Your task to perform on an android device: visit the assistant section in the google photos Image 0: 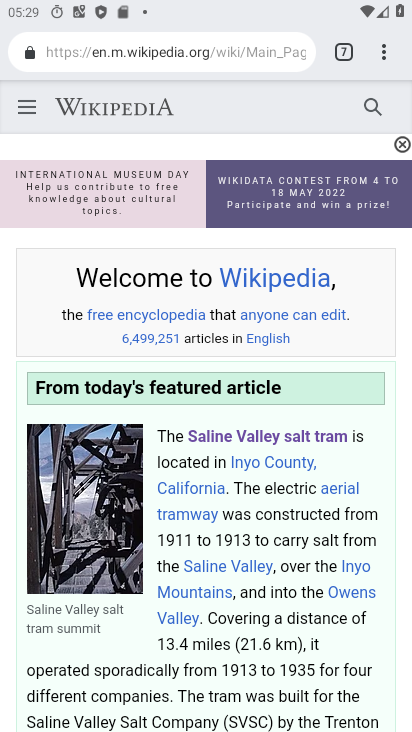
Step 0: press home button
Your task to perform on an android device: visit the assistant section in the google photos Image 1: 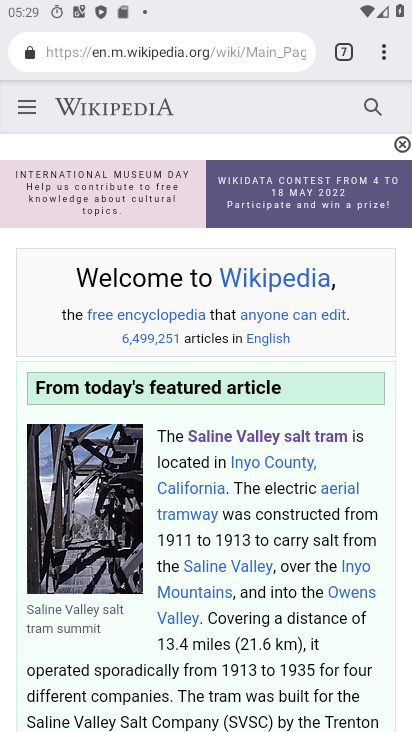
Step 1: press home button
Your task to perform on an android device: visit the assistant section in the google photos Image 2: 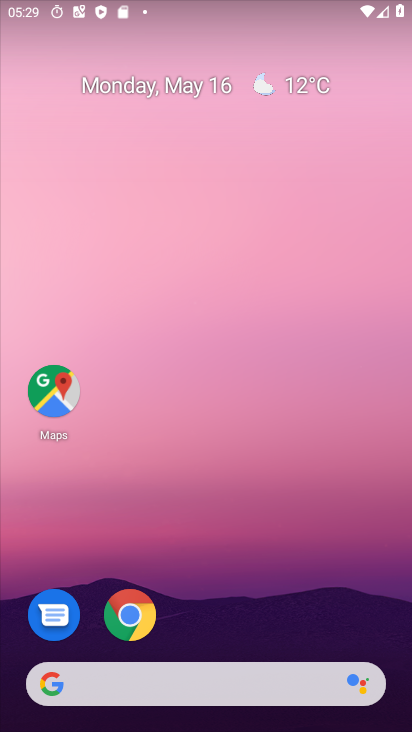
Step 2: drag from (310, 671) to (177, 116)
Your task to perform on an android device: visit the assistant section in the google photos Image 3: 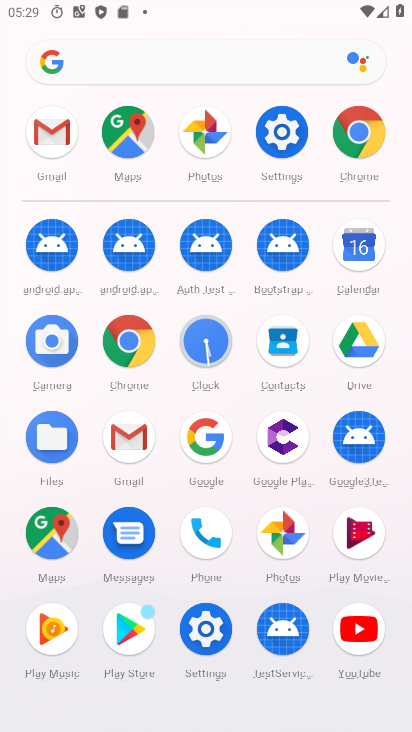
Step 3: click (277, 528)
Your task to perform on an android device: visit the assistant section in the google photos Image 4: 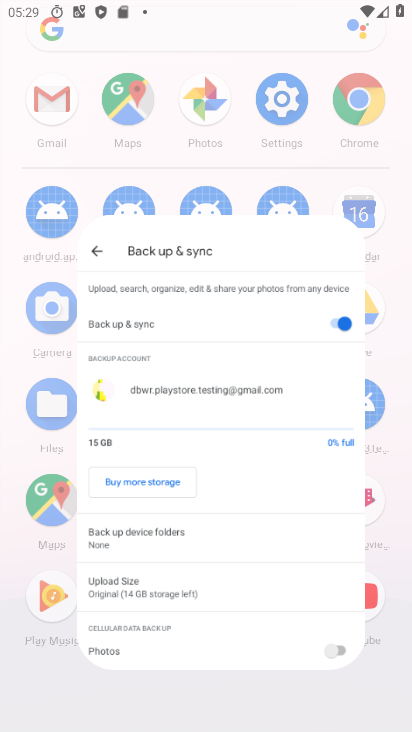
Step 4: click (278, 527)
Your task to perform on an android device: visit the assistant section in the google photos Image 5: 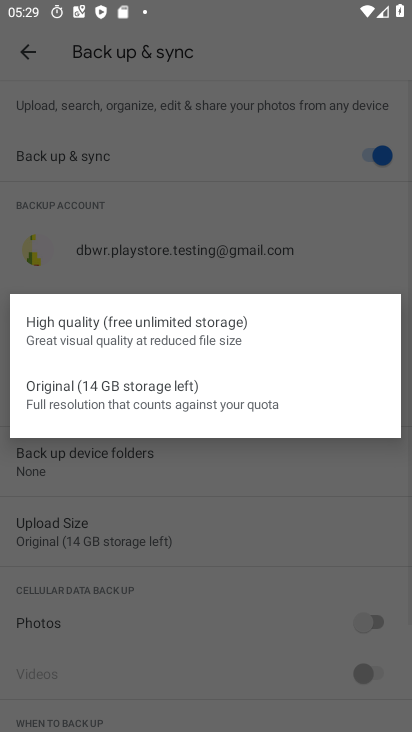
Step 5: click (74, 396)
Your task to perform on an android device: visit the assistant section in the google photos Image 6: 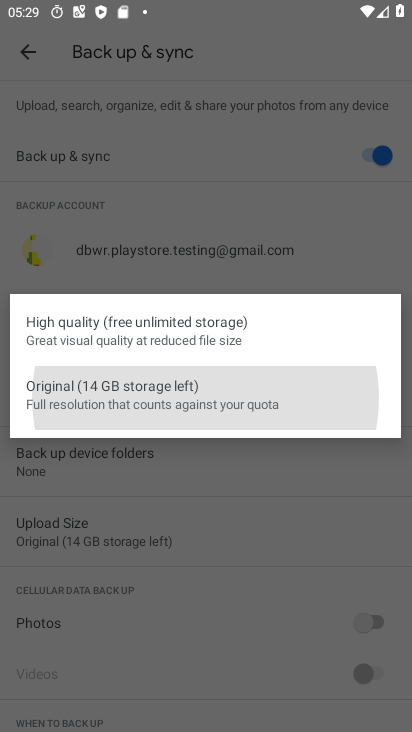
Step 6: click (75, 397)
Your task to perform on an android device: visit the assistant section in the google photos Image 7: 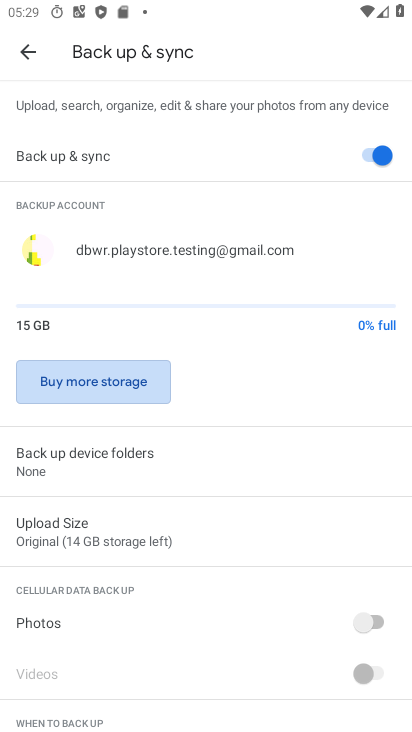
Step 7: click (75, 397)
Your task to perform on an android device: visit the assistant section in the google photos Image 8: 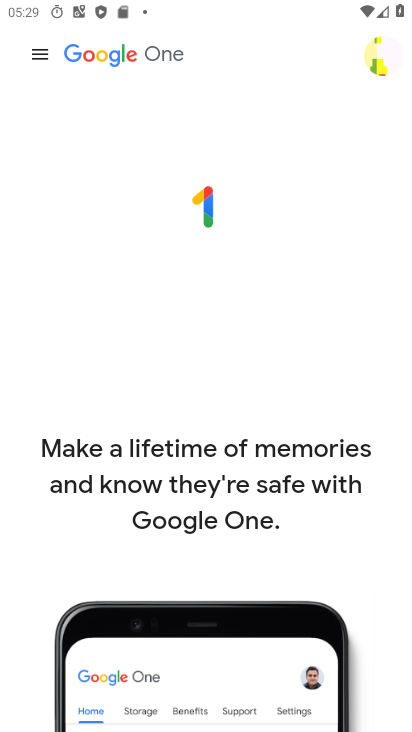
Step 8: press back button
Your task to perform on an android device: visit the assistant section in the google photos Image 9: 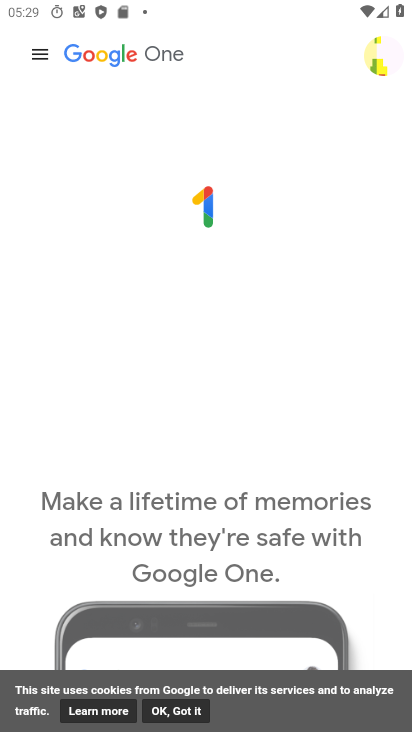
Step 9: press back button
Your task to perform on an android device: visit the assistant section in the google photos Image 10: 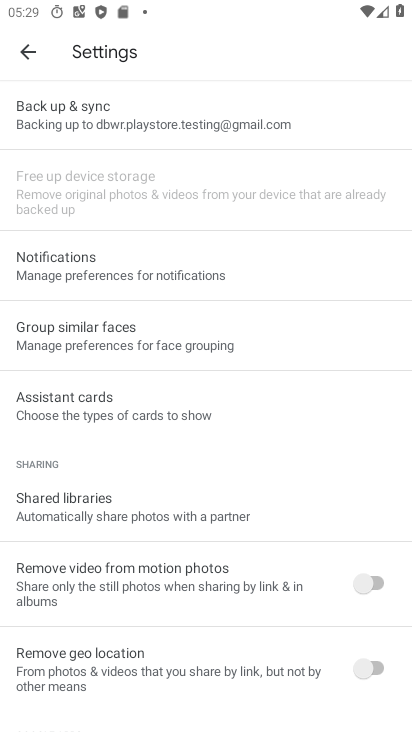
Step 10: click (20, 46)
Your task to perform on an android device: visit the assistant section in the google photos Image 11: 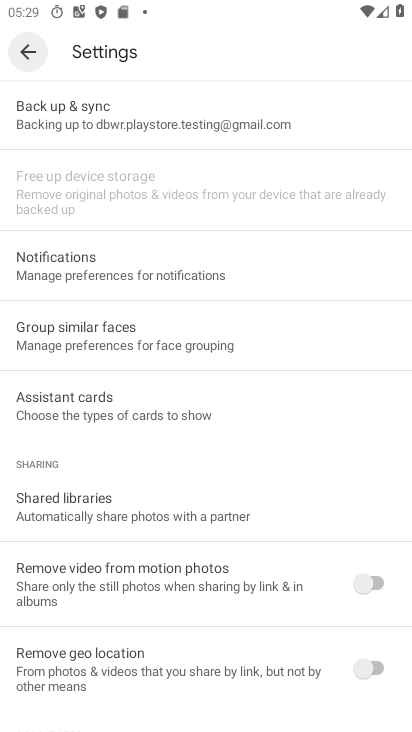
Step 11: click (19, 46)
Your task to perform on an android device: visit the assistant section in the google photos Image 12: 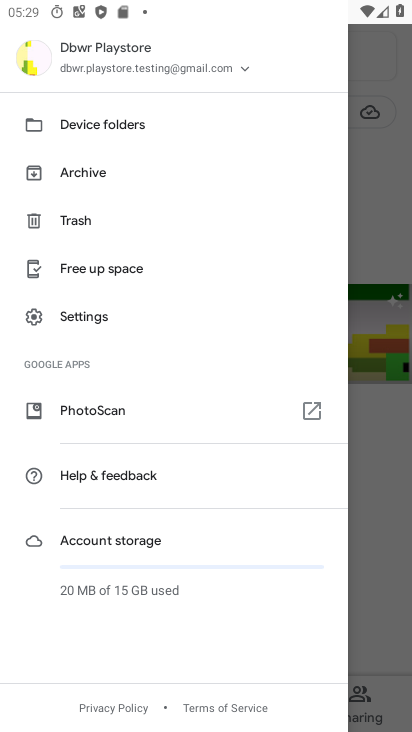
Step 12: click (337, 440)
Your task to perform on an android device: visit the assistant section in the google photos Image 13: 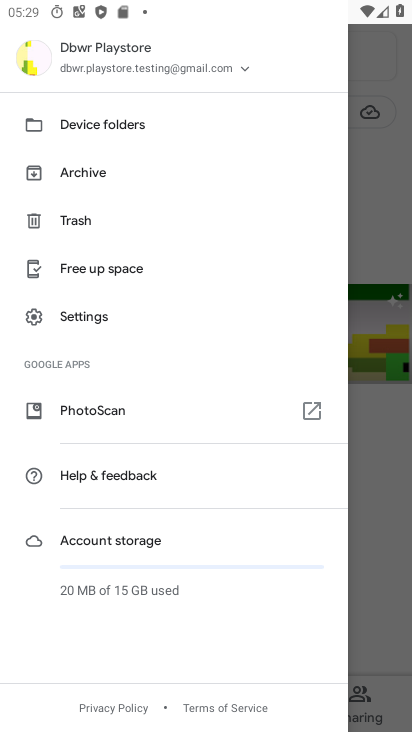
Step 13: click (357, 452)
Your task to perform on an android device: visit the assistant section in the google photos Image 14: 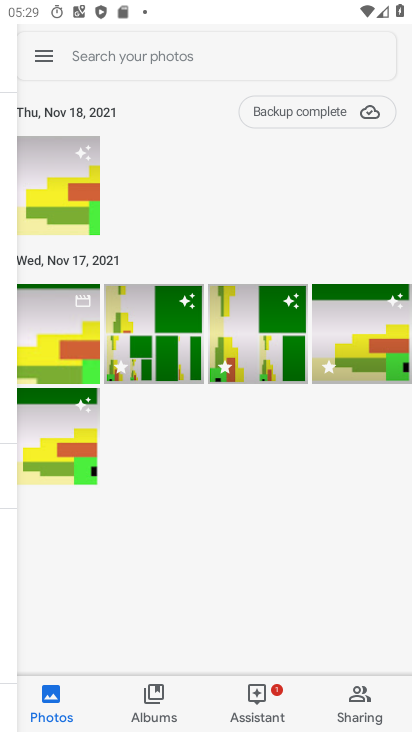
Step 14: click (358, 452)
Your task to perform on an android device: visit the assistant section in the google photos Image 15: 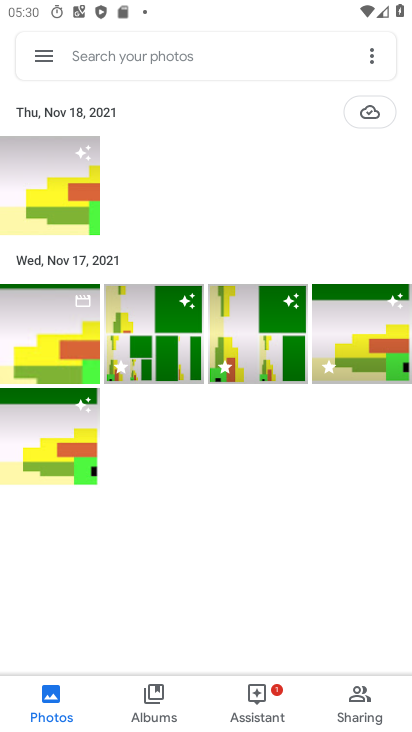
Step 15: click (255, 702)
Your task to perform on an android device: visit the assistant section in the google photos Image 16: 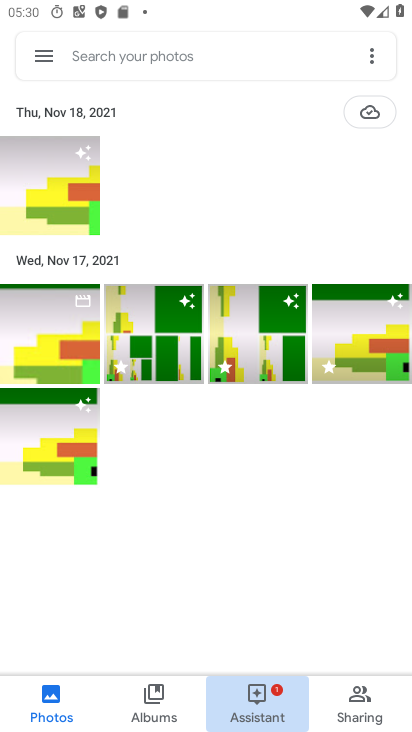
Step 16: click (256, 704)
Your task to perform on an android device: visit the assistant section in the google photos Image 17: 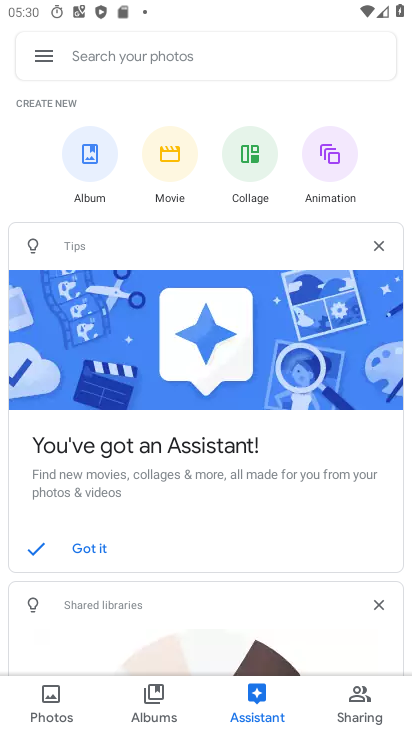
Step 17: click (258, 705)
Your task to perform on an android device: visit the assistant section in the google photos Image 18: 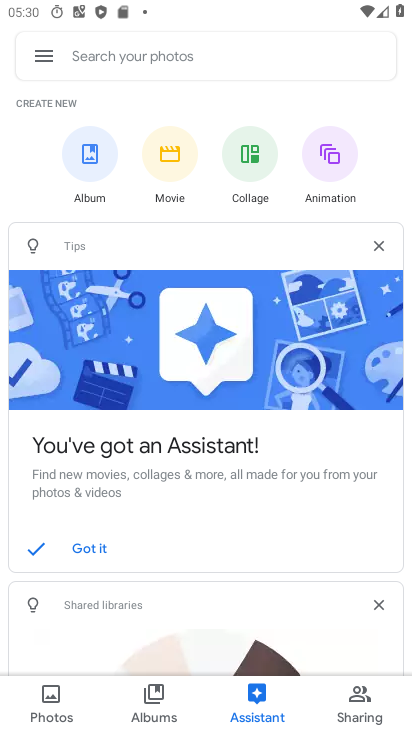
Step 18: task complete